Your task to perform on an android device: turn off location history Image 0: 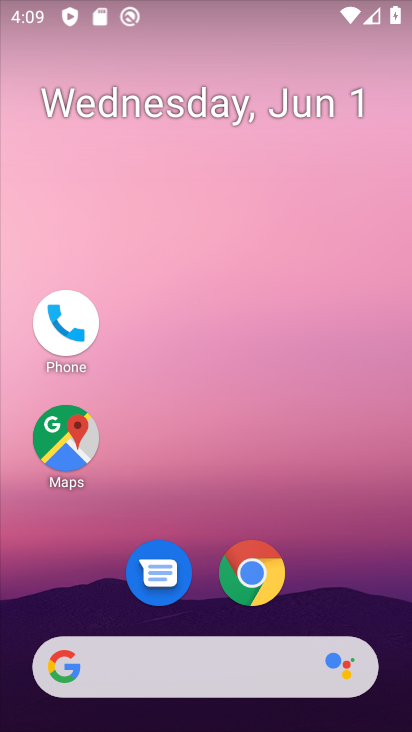
Step 0: drag from (191, 600) to (208, 139)
Your task to perform on an android device: turn off location history Image 1: 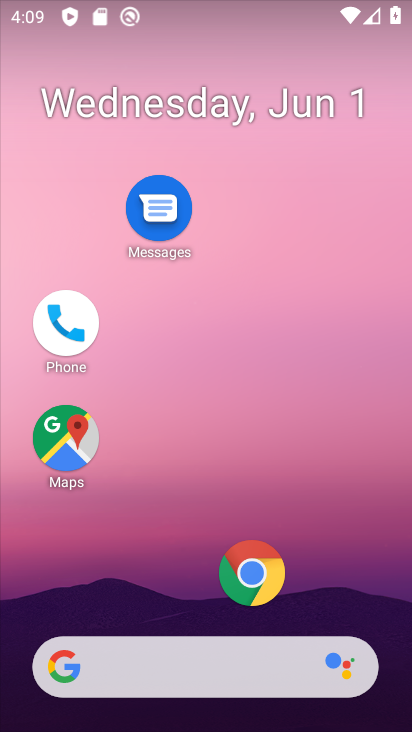
Step 1: drag from (194, 602) to (268, 62)
Your task to perform on an android device: turn off location history Image 2: 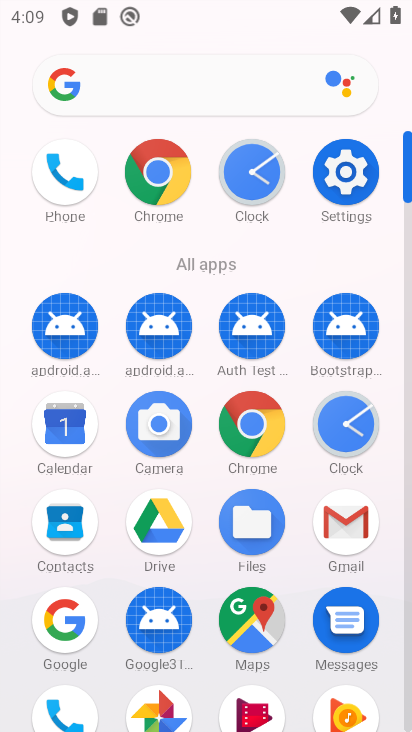
Step 2: click (344, 180)
Your task to perform on an android device: turn off location history Image 3: 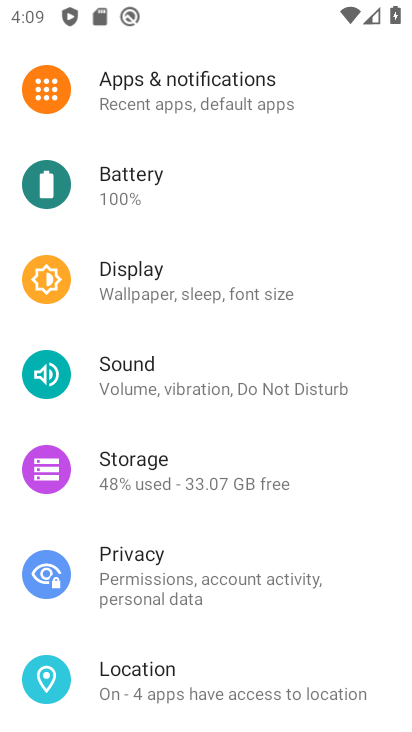
Step 3: click (158, 681)
Your task to perform on an android device: turn off location history Image 4: 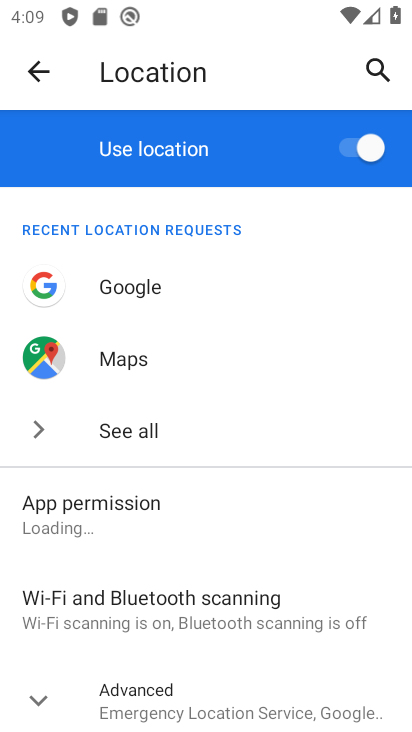
Step 4: drag from (158, 681) to (199, 511)
Your task to perform on an android device: turn off location history Image 5: 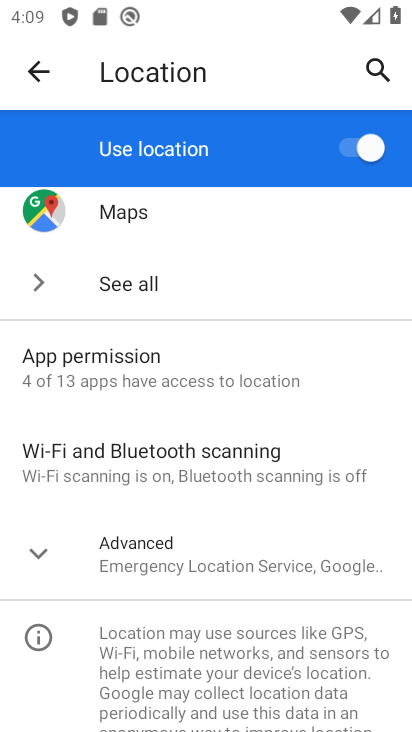
Step 5: click (184, 560)
Your task to perform on an android device: turn off location history Image 6: 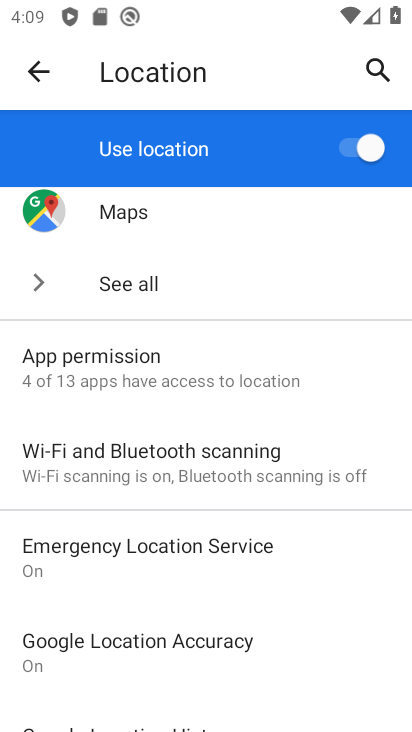
Step 6: drag from (154, 681) to (228, 406)
Your task to perform on an android device: turn off location history Image 7: 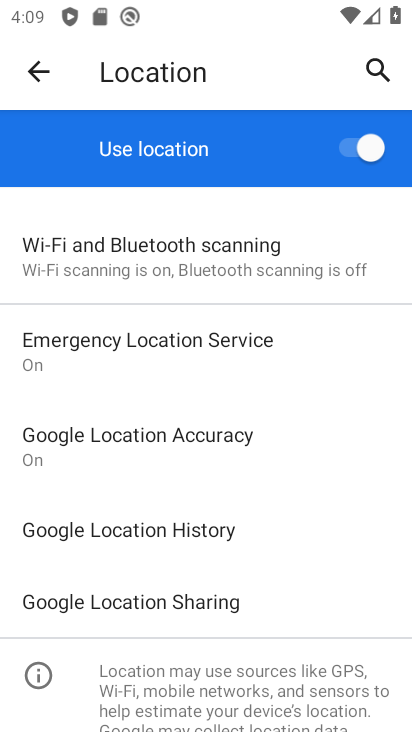
Step 7: click (141, 528)
Your task to perform on an android device: turn off location history Image 8: 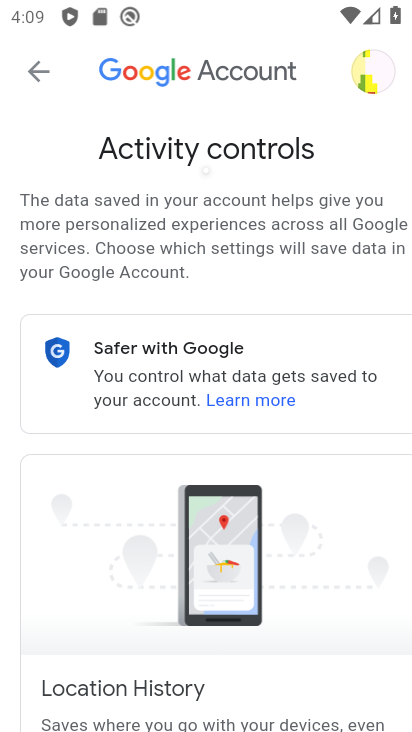
Step 8: drag from (141, 528) to (148, 23)
Your task to perform on an android device: turn off location history Image 9: 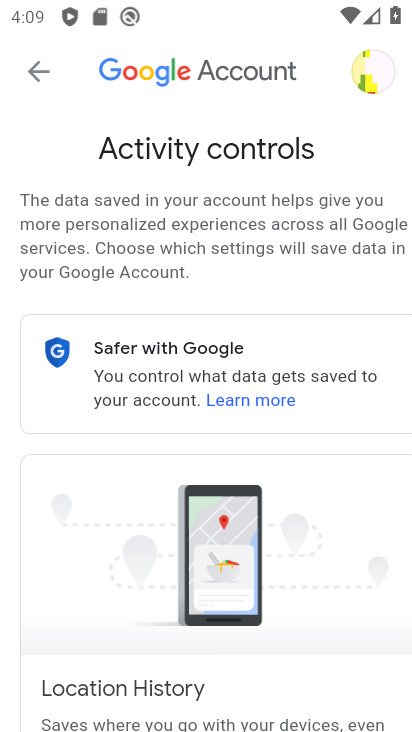
Step 9: drag from (124, 653) to (127, 221)
Your task to perform on an android device: turn off location history Image 10: 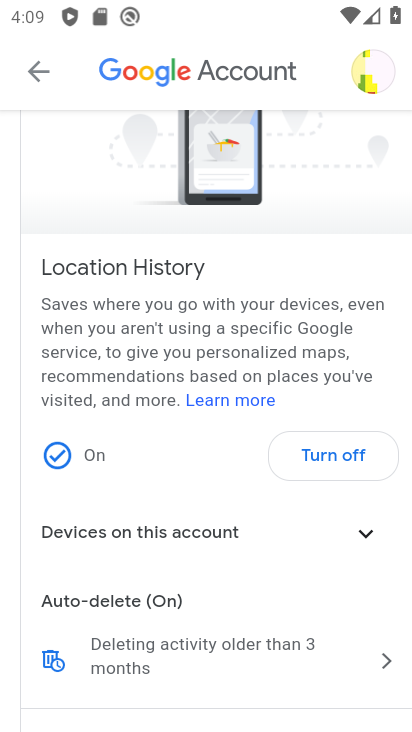
Step 10: click (316, 482)
Your task to perform on an android device: turn off location history Image 11: 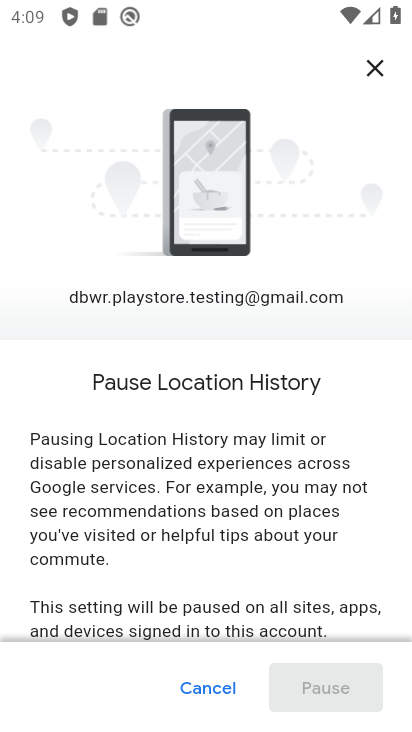
Step 11: drag from (110, 598) to (226, 192)
Your task to perform on an android device: turn off location history Image 12: 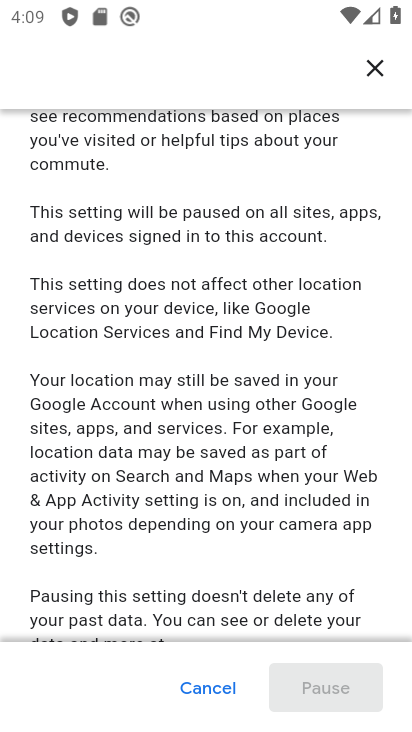
Step 12: drag from (191, 613) to (407, 113)
Your task to perform on an android device: turn off location history Image 13: 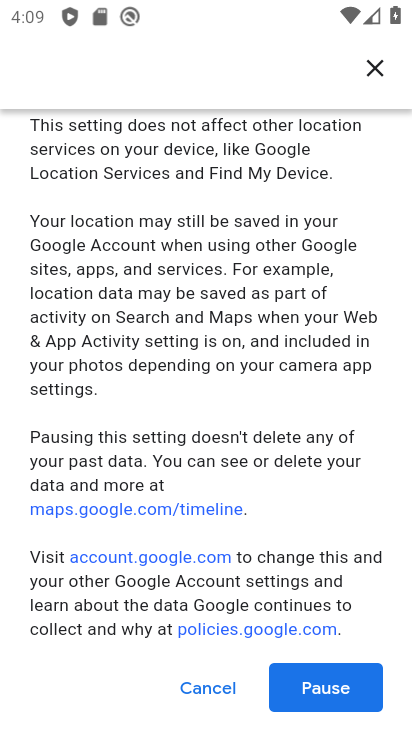
Step 13: click (396, 692)
Your task to perform on an android device: turn off location history Image 14: 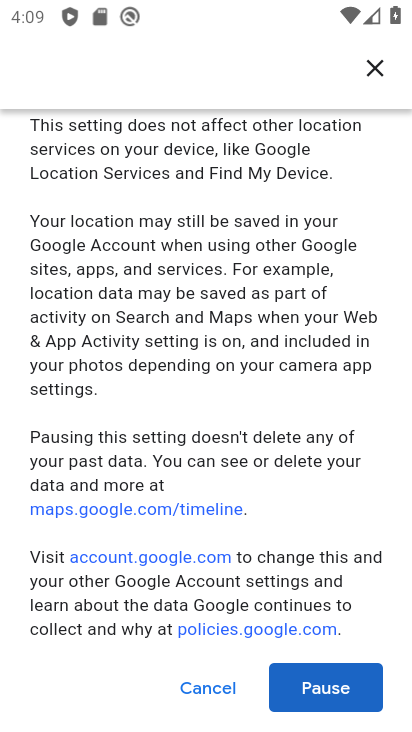
Step 14: click (370, 688)
Your task to perform on an android device: turn off location history Image 15: 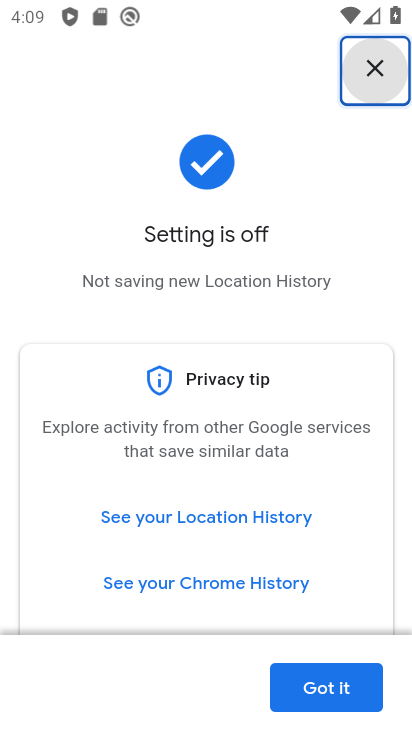
Step 15: click (370, 688)
Your task to perform on an android device: turn off location history Image 16: 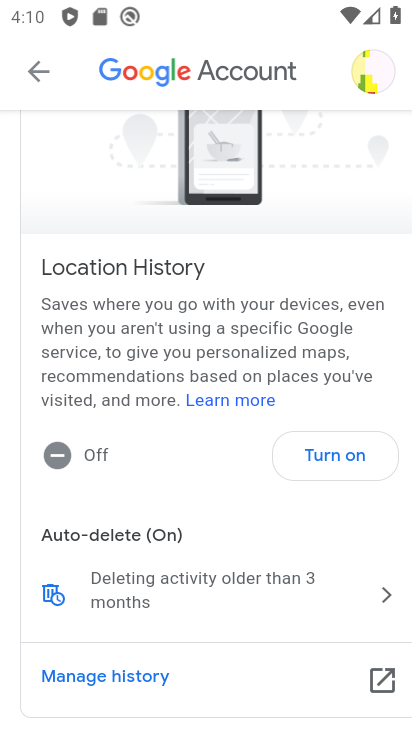
Step 16: task complete